Your task to perform on an android device: make emails show in primary in the gmail app Image 0: 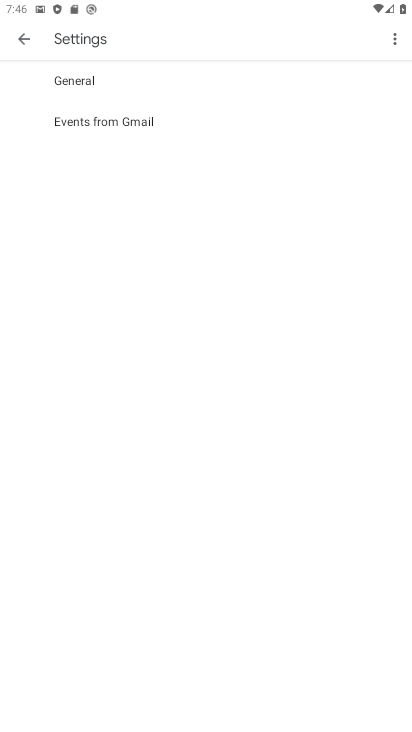
Step 0: click (396, 306)
Your task to perform on an android device: make emails show in primary in the gmail app Image 1: 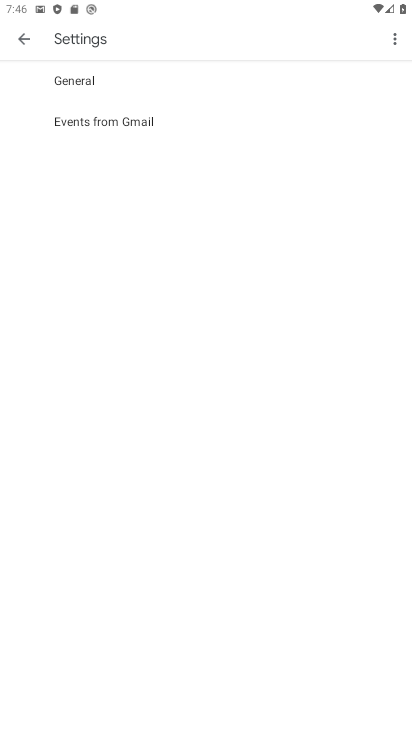
Step 1: press home button
Your task to perform on an android device: make emails show in primary in the gmail app Image 2: 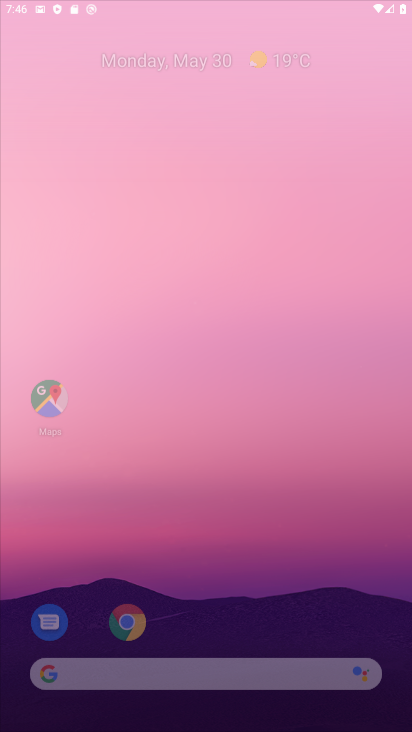
Step 2: drag from (273, 640) to (344, 318)
Your task to perform on an android device: make emails show in primary in the gmail app Image 3: 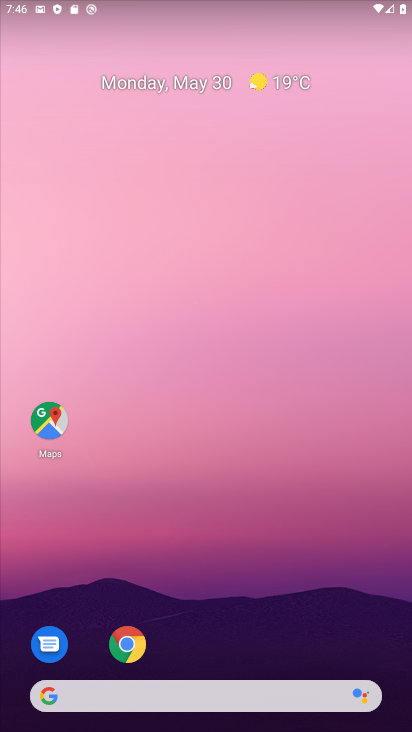
Step 3: drag from (205, 653) to (257, 44)
Your task to perform on an android device: make emails show in primary in the gmail app Image 4: 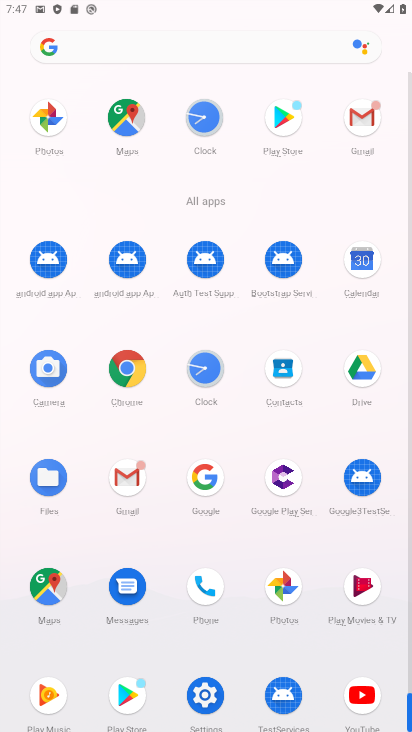
Step 4: drag from (240, 593) to (258, 244)
Your task to perform on an android device: make emails show in primary in the gmail app Image 5: 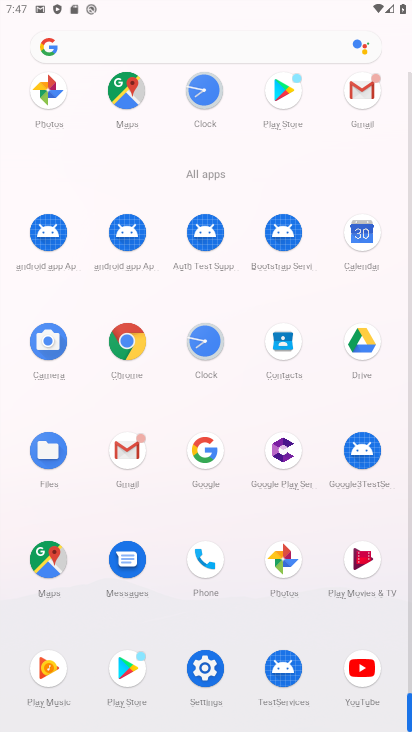
Step 5: click (112, 439)
Your task to perform on an android device: make emails show in primary in the gmail app Image 6: 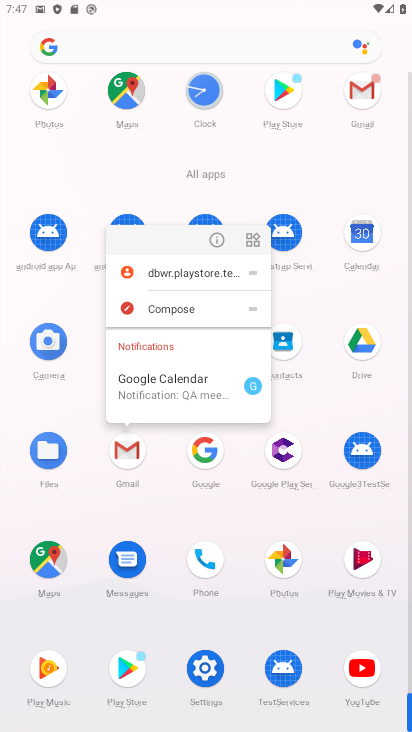
Step 6: click (215, 239)
Your task to perform on an android device: make emails show in primary in the gmail app Image 7: 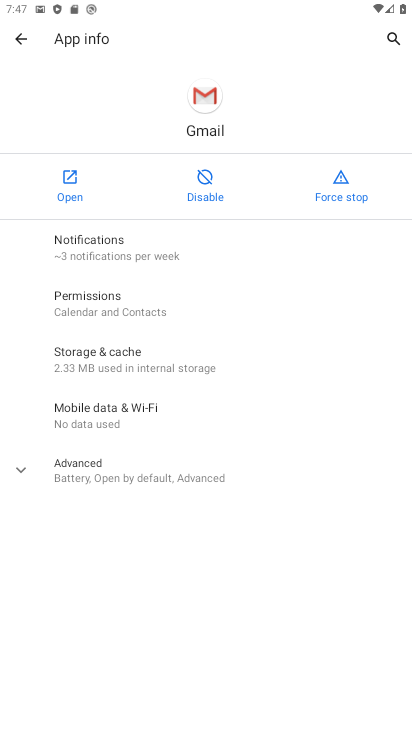
Step 7: click (62, 173)
Your task to perform on an android device: make emails show in primary in the gmail app Image 8: 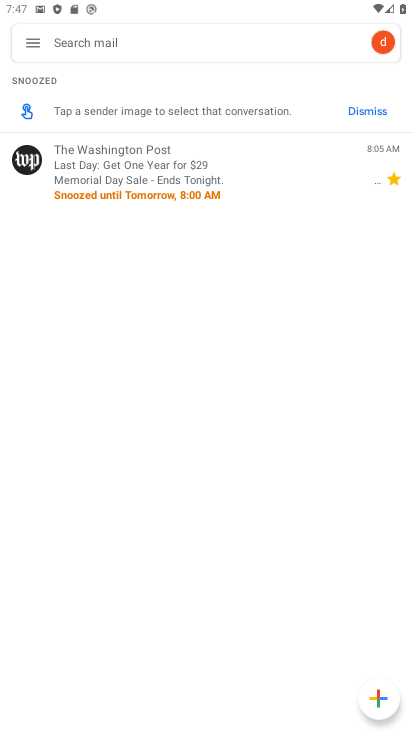
Step 8: click (26, 43)
Your task to perform on an android device: make emails show in primary in the gmail app Image 9: 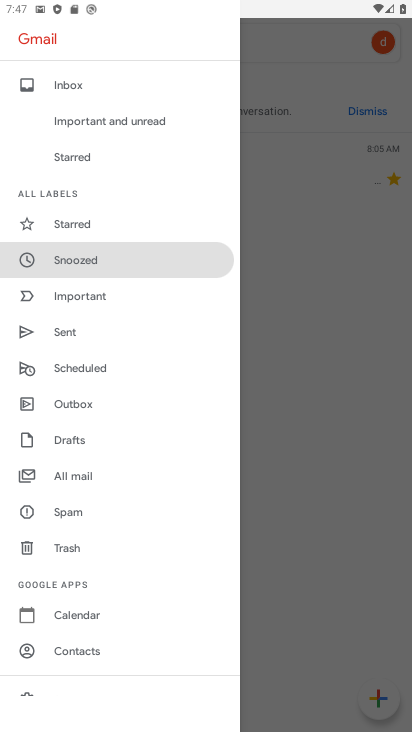
Step 9: click (85, 88)
Your task to perform on an android device: make emails show in primary in the gmail app Image 10: 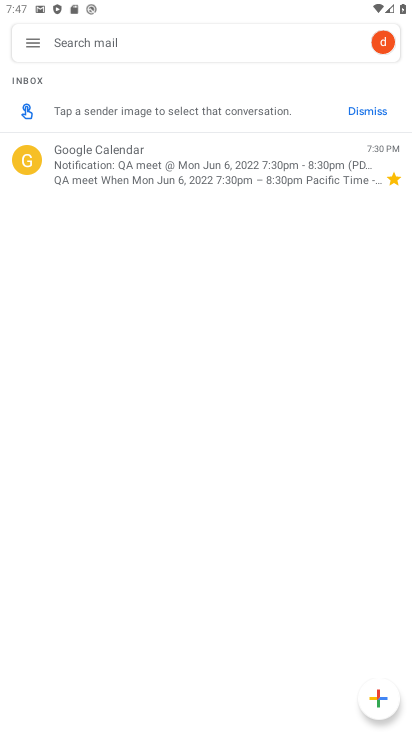
Step 10: task complete